Your task to perform on an android device: refresh tabs in the chrome app Image 0: 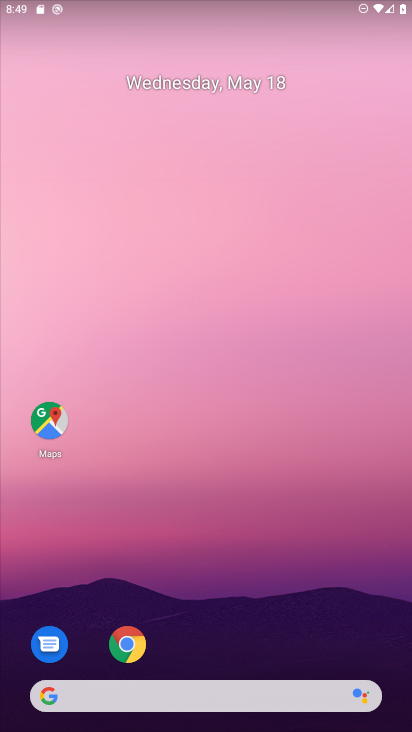
Step 0: click (124, 658)
Your task to perform on an android device: refresh tabs in the chrome app Image 1: 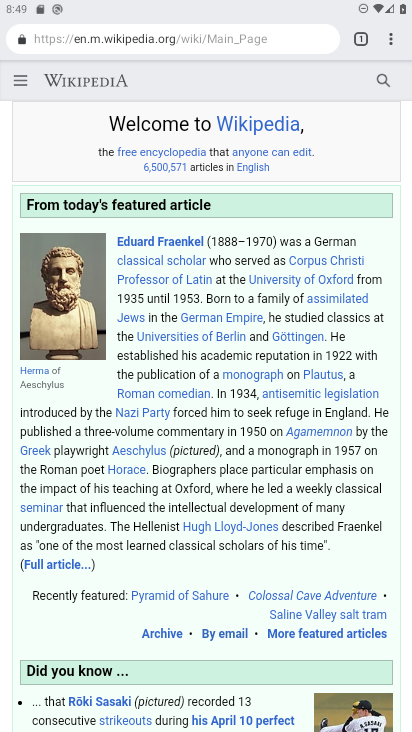
Step 1: click (391, 35)
Your task to perform on an android device: refresh tabs in the chrome app Image 2: 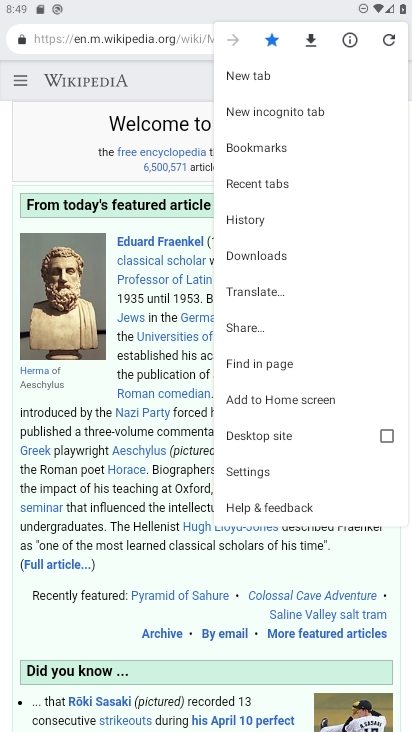
Step 2: click (392, 42)
Your task to perform on an android device: refresh tabs in the chrome app Image 3: 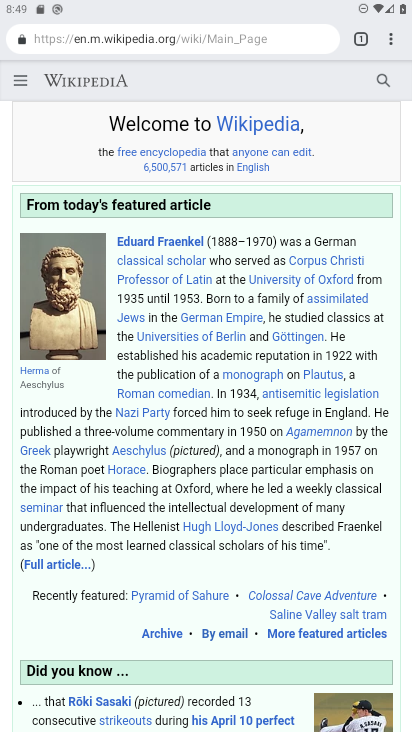
Step 3: task complete